Your task to perform on an android device: Open the calendar and show me this week's events Image 0: 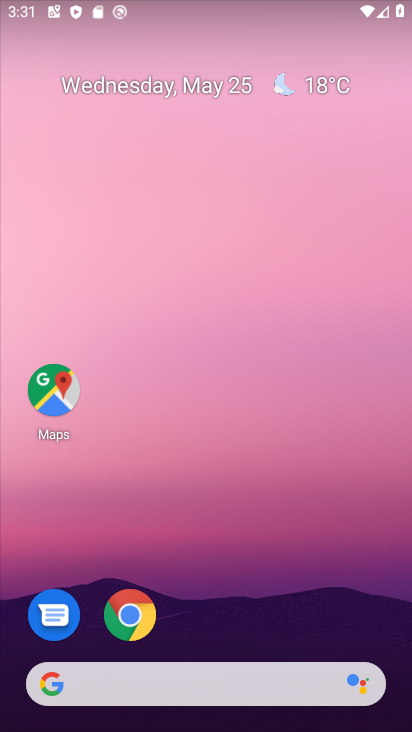
Step 0: drag from (218, 635) to (186, 23)
Your task to perform on an android device: Open the calendar and show me this week's events Image 1: 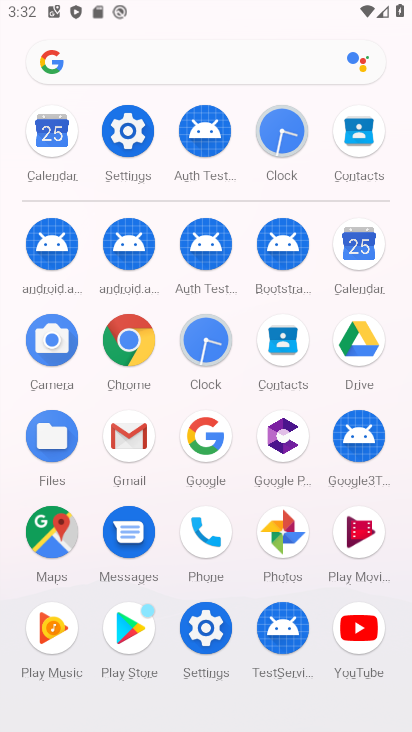
Step 1: click (53, 135)
Your task to perform on an android device: Open the calendar and show me this week's events Image 2: 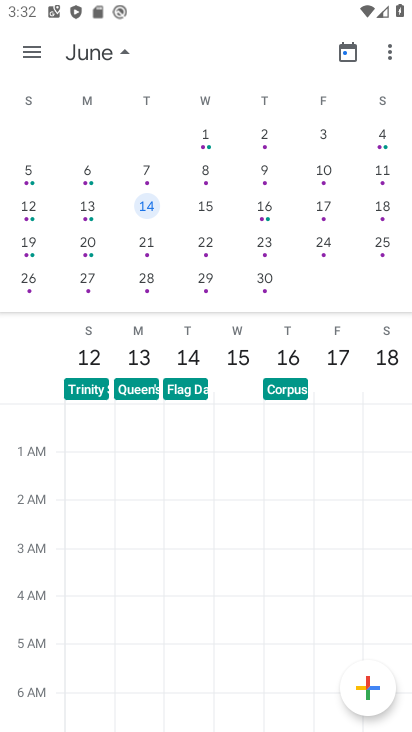
Step 2: click (56, 61)
Your task to perform on an android device: Open the calendar and show me this week's events Image 3: 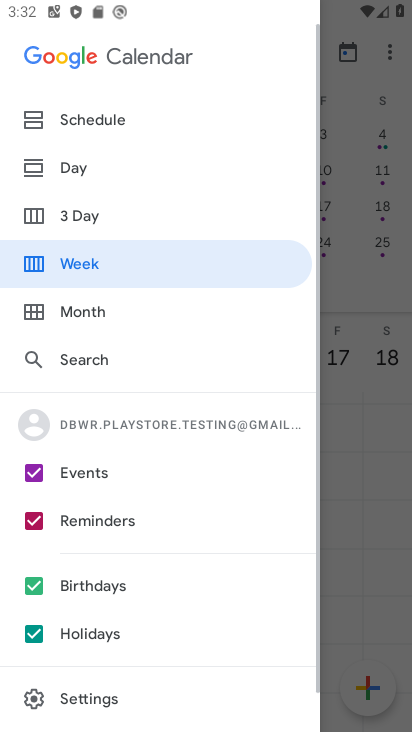
Step 3: drag from (57, 61) to (68, 7)
Your task to perform on an android device: Open the calendar and show me this week's events Image 4: 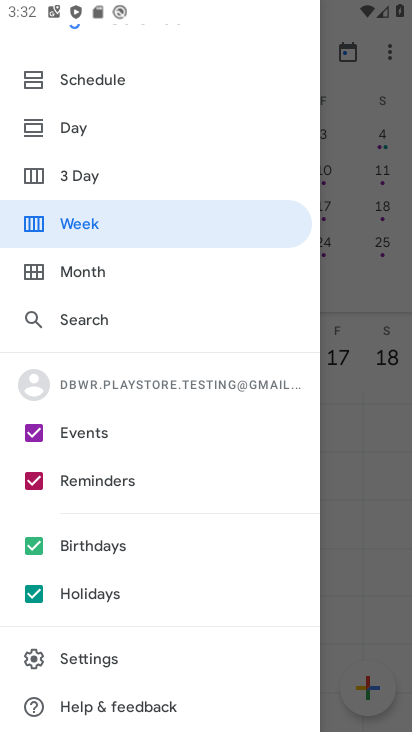
Step 4: drag from (341, 407) to (151, 318)
Your task to perform on an android device: Open the calendar and show me this week's events Image 5: 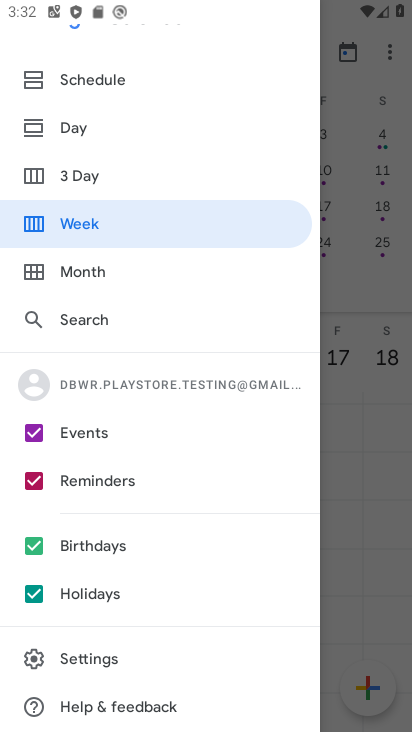
Step 5: click (224, 230)
Your task to perform on an android device: Open the calendar and show me this week's events Image 6: 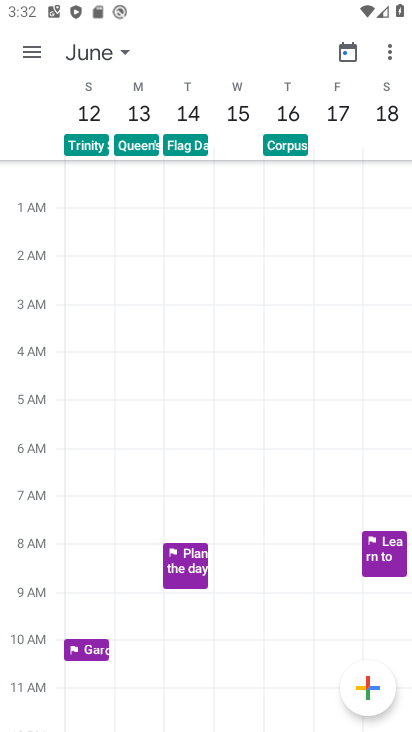
Step 6: click (107, 53)
Your task to perform on an android device: Open the calendar and show me this week's events Image 7: 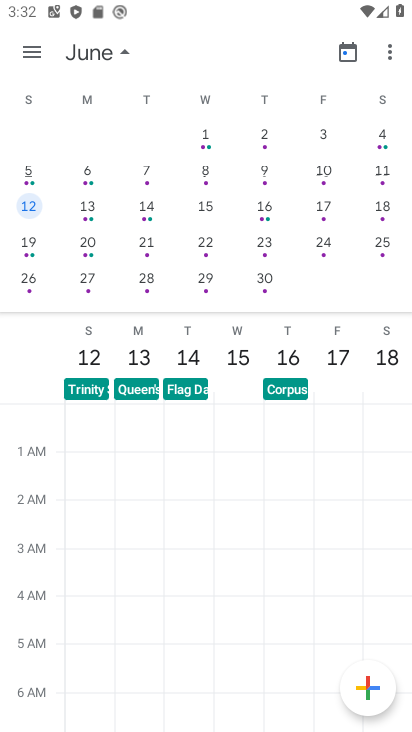
Step 7: click (117, 223)
Your task to perform on an android device: Open the calendar and show me this week's events Image 8: 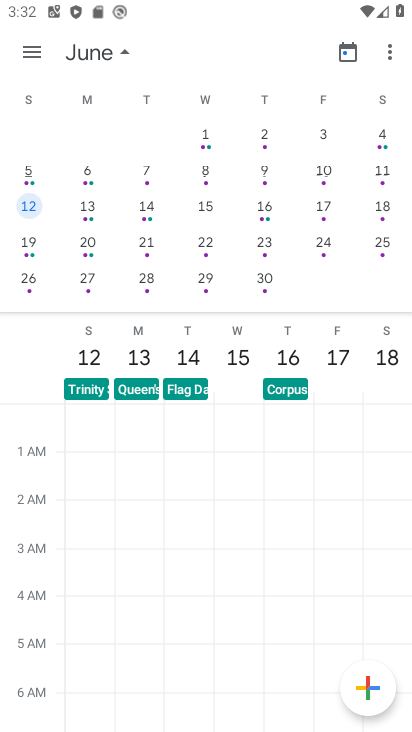
Step 8: drag from (35, 206) to (407, 233)
Your task to perform on an android device: Open the calendar and show me this week's events Image 9: 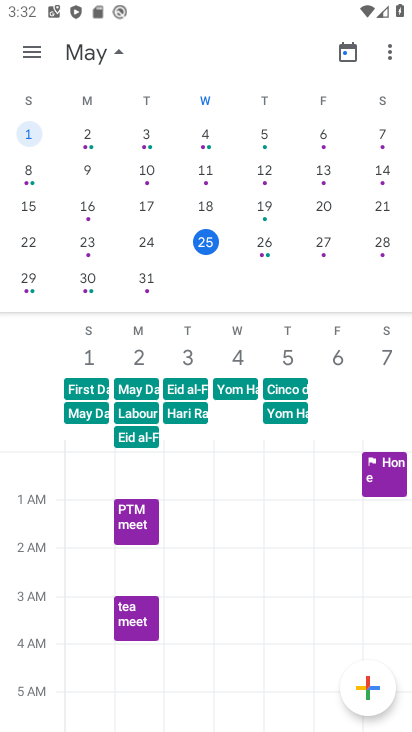
Step 9: click (247, 242)
Your task to perform on an android device: Open the calendar and show me this week's events Image 10: 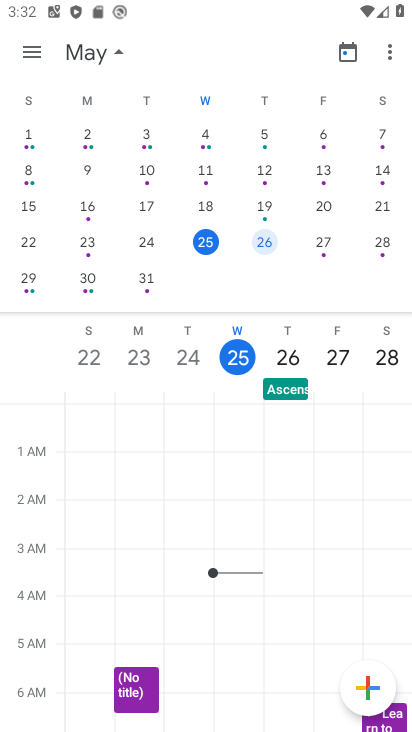
Step 10: click (209, 236)
Your task to perform on an android device: Open the calendar and show me this week's events Image 11: 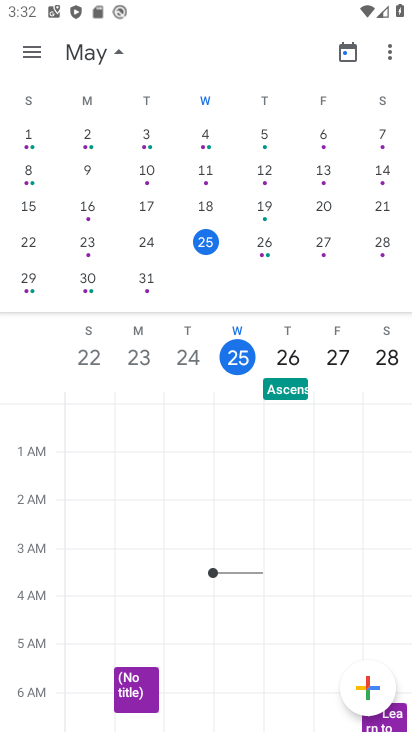
Step 11: task complete